Your task to perform on an android device: turn off priority inbox in the gmail app Image 0: 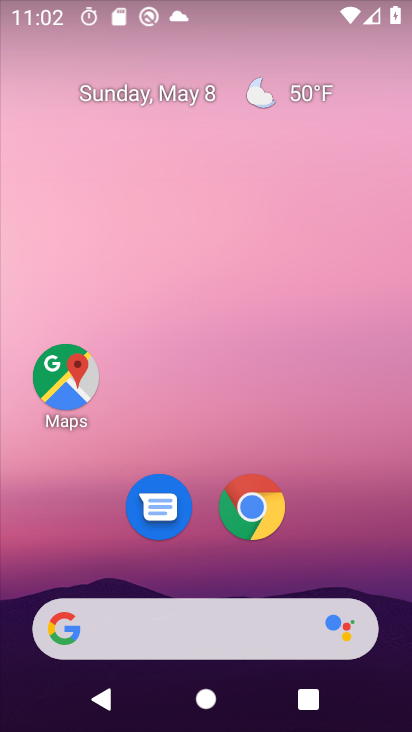
Step 0: drag from (222, 729) to (226, 136)
Your task to perform on an android device: turn off priority inbox in the gmail app Image 1: 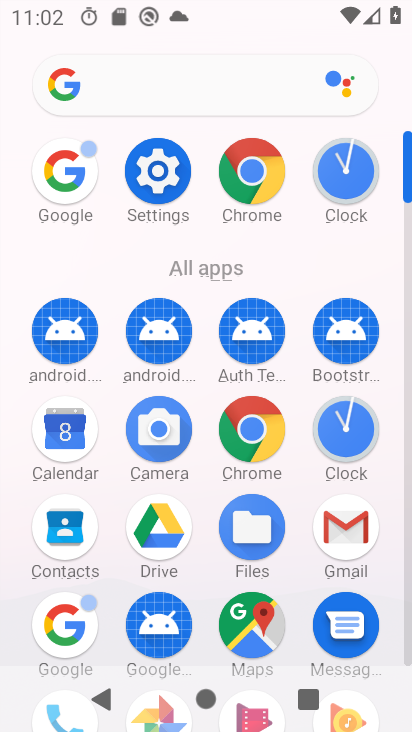
Step 1: click (338, 536)
Your task to perform on an android device: turn off priority inbox in the gmail app Image 2: 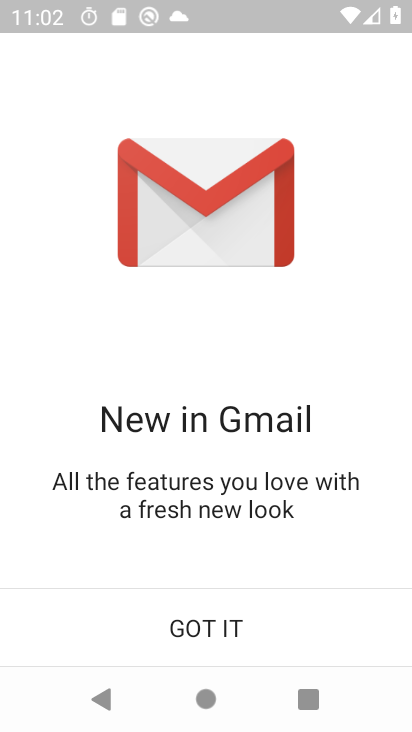
Step 2: click (207, 630)
Your task to perform on an android device: turn off priority inbox in the gmail app Image 3: 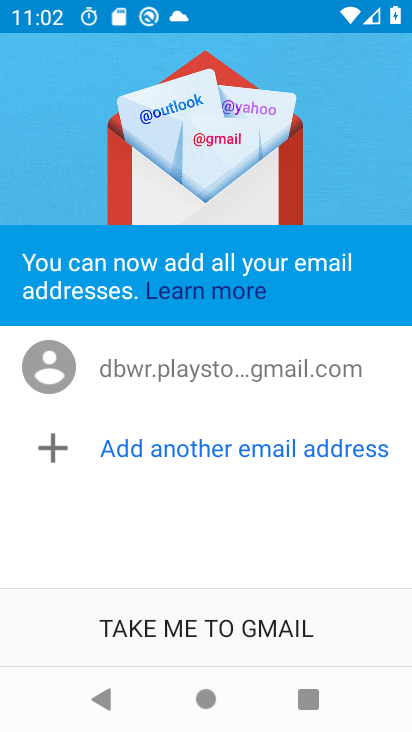
Step 3: click (211, 622)
Your task to perform on an android device: turn off priority inbox in the gmail app Image 4: 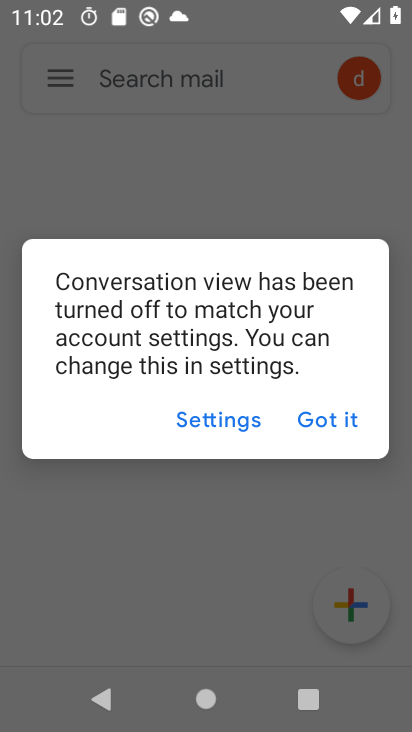
Step 4: click (315, 421)
Your task to perform on an android device: turn off priority inbox in the gmail app Image 5: 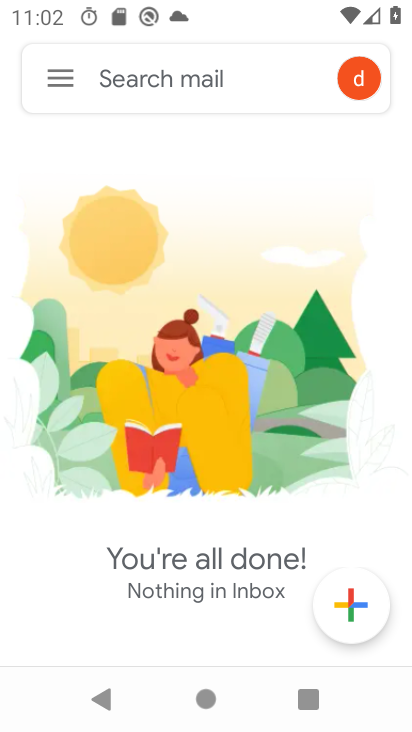
Step 5: click (60, 80)
Your task to perform on an android device: turn off priority inbox in the gmail app Image 6: 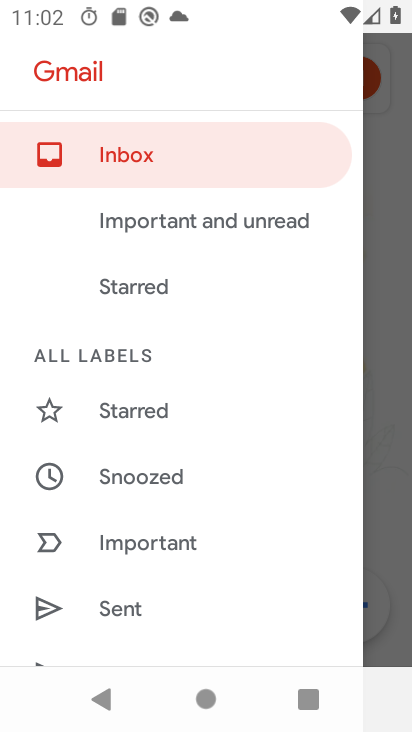
Step 6: drag from (180, 636) to (165, 320)
Your task to perform on an android device: turn off priority inbox in the gmail app Image 7: 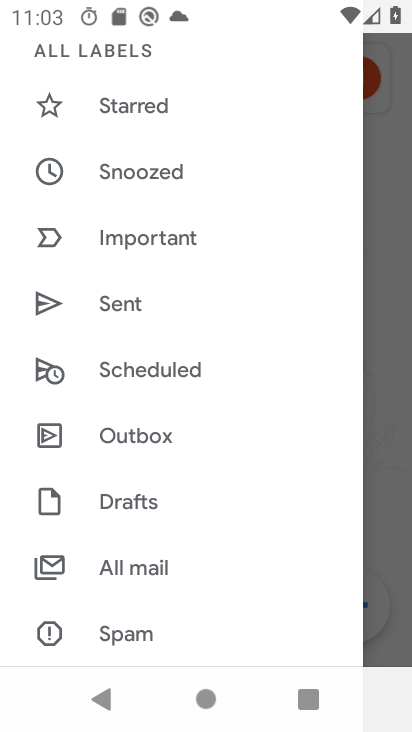
Step 7: drag from (181, 643) to (182, 261)
Your task to perform on an android device: turn off priority inbox in the gmail app Image 8: 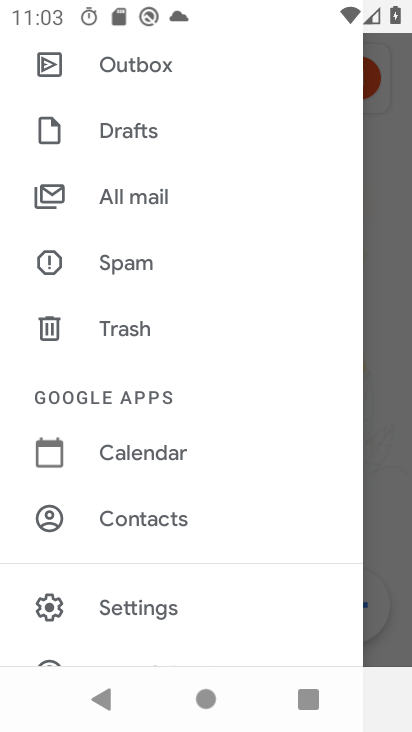
Step 8: click (137, 605)
Your task to perform on an android device: turn off priority inbox in the gmail app Image 9: 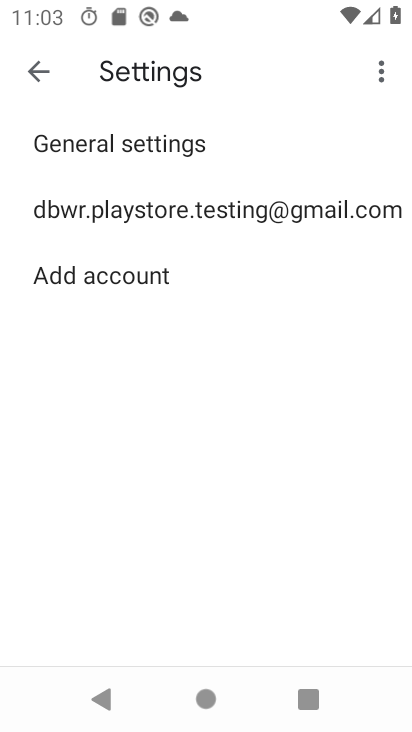
Step 9: click (163, 210)
Your task to perform on an android device: turn off priority inbox in the gmail app Image 10: 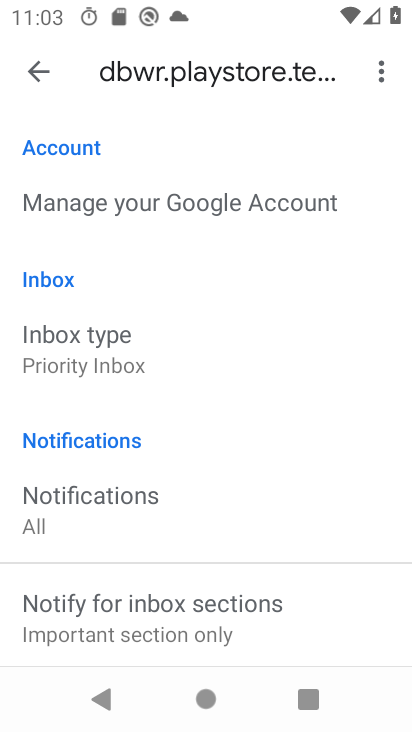
Step 10: click (93, 361)
Your task to perform on an android device: turn off priority inbox in the gmail app Image 11: 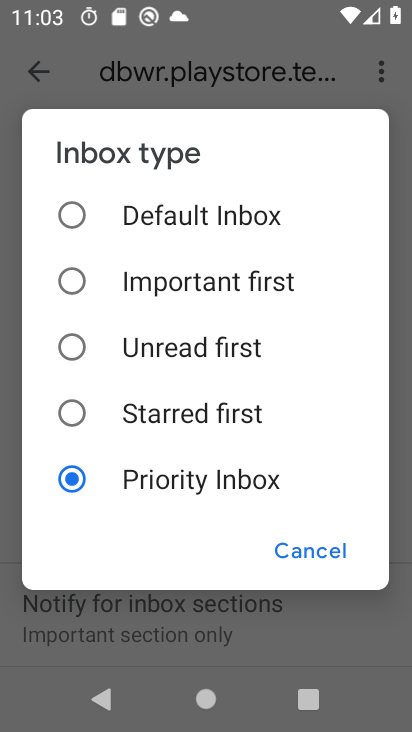
Step 11: click (70, 215)
Your task to perform on an android device: turn off priority inbox in the gmail app Image 12: 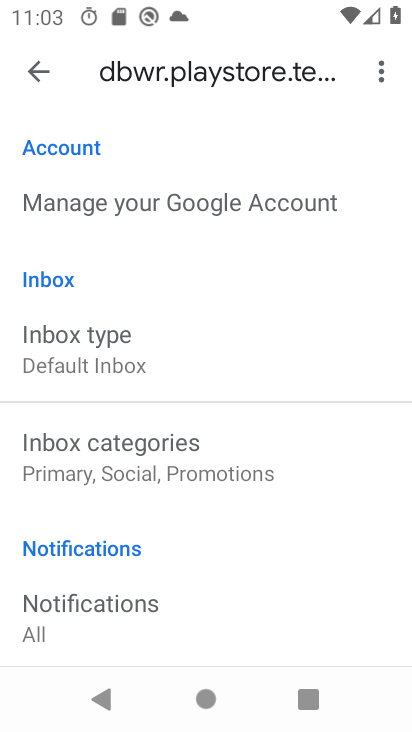
Step 12: task complete